Your task to perform on an android device: What is the recent news? Image 0: 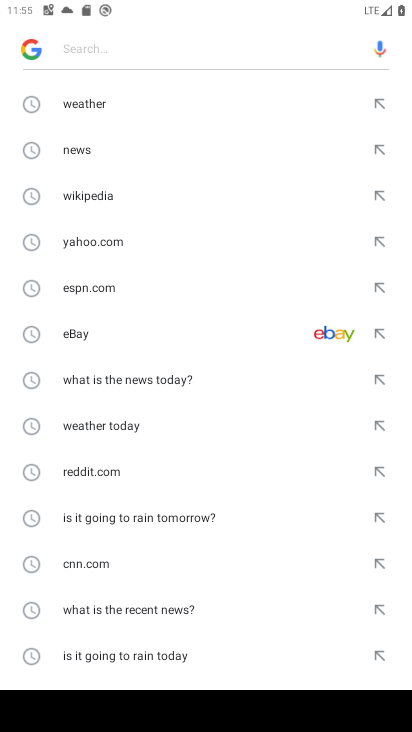
Step 0: click (126, 150)
Your task to perform on an android device: What is the recent news? Image 1: 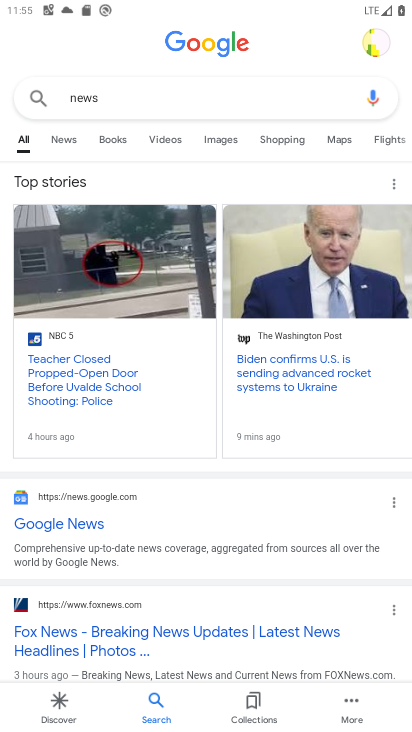
Step 1: click (64, 141)
Your task to perform on an android device: What is the recent news? Image 2: 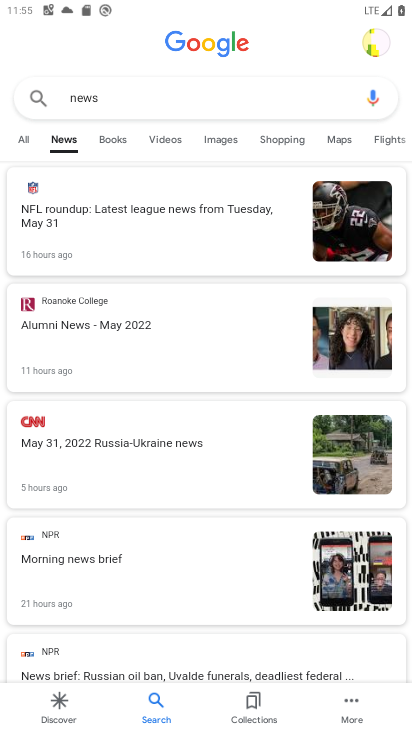
Step 2: task complete